Your task to perform on an android device: toggle airplane mode Image 0: 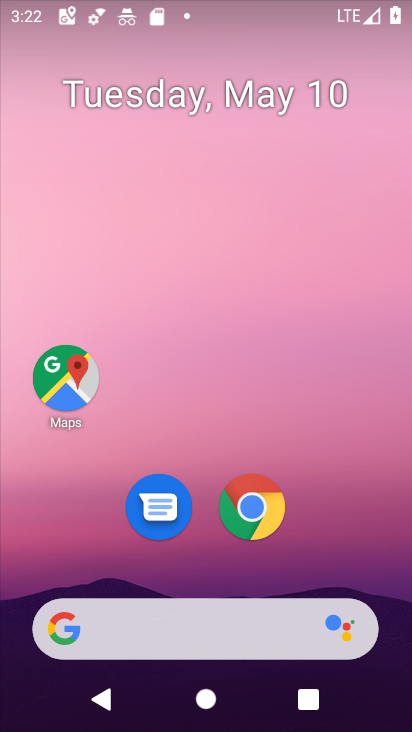
Step 0: drag from (266, 574) to (252, 188)
Your task to perform on an android device: toggle airplane mode Image 1: 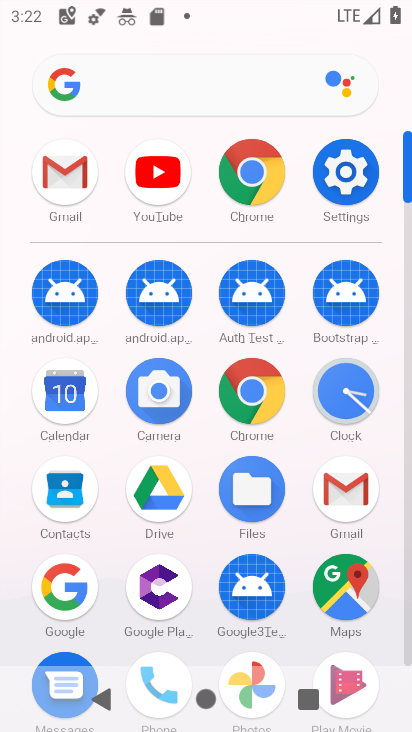
Step 1: click (348, 171)
Your task to perform on an android device: toggle airplane mode Image 2: 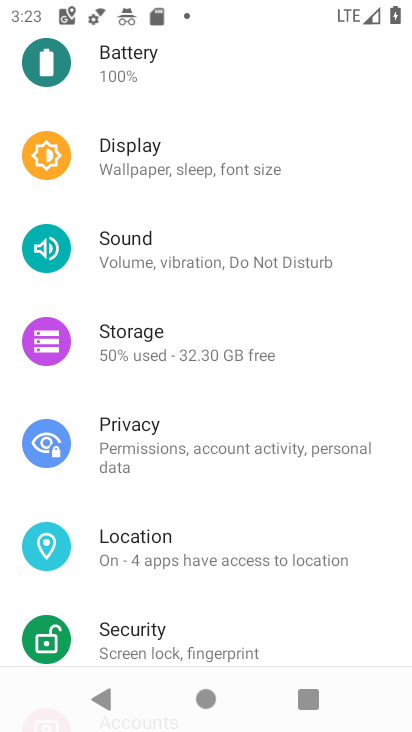
Step 2: drag from (184, 144) to (159, 589)
Your task to perform on an android device: toggle airplane mode Image 3: 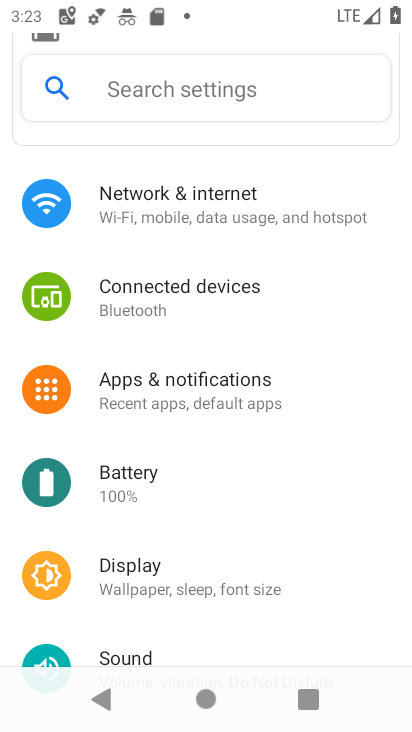
Step 3: click (193, 219)
Your task to perform on an android device: toggle airplane mode Image 4: 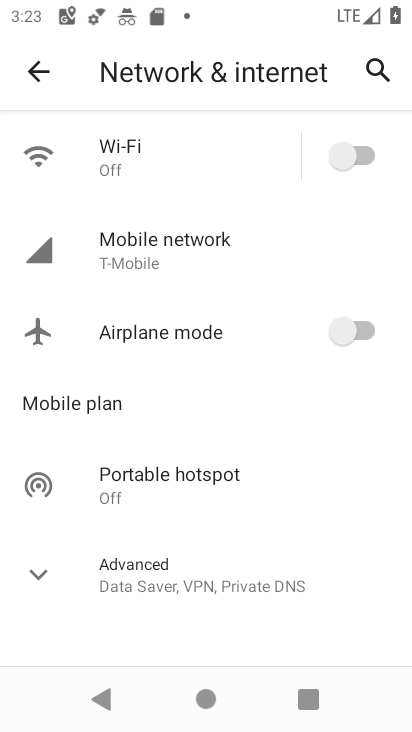
Step 4: click (347, 328)
Your task to perform on an android device: toggle airplane mode Image 5: 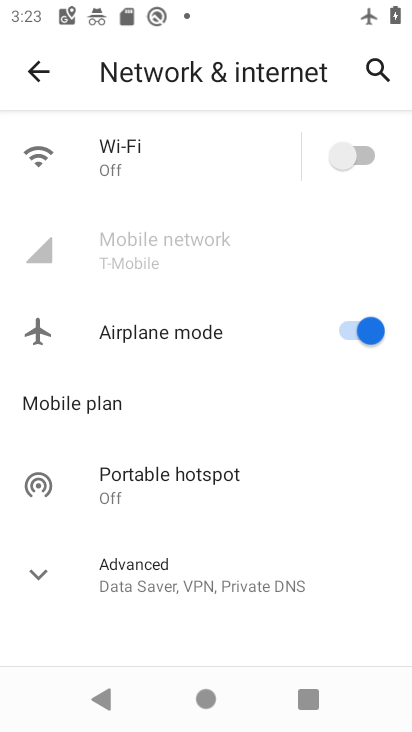
Step 5: task complete